Your task to perform on an android device: toggle pop-ups in chrome Image 0: 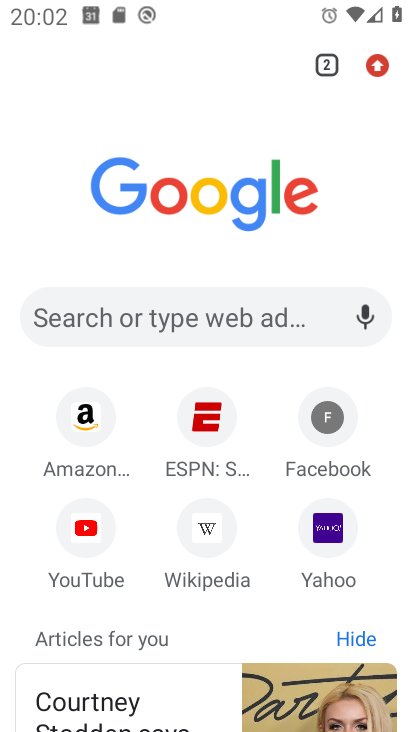
Step 0: click (372, 75)
Your task to perform on an android device: toggle pop-ups in chrome Image 1: 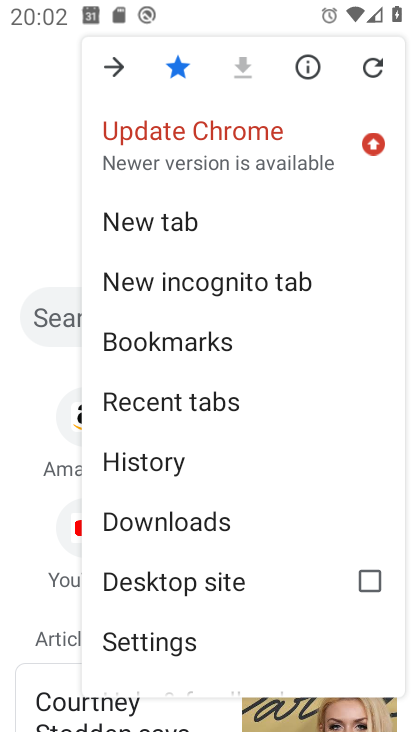
Step 1: click (194, 655)
Your task to perform on an android device: toggle pop-ups in chrome Image 2: 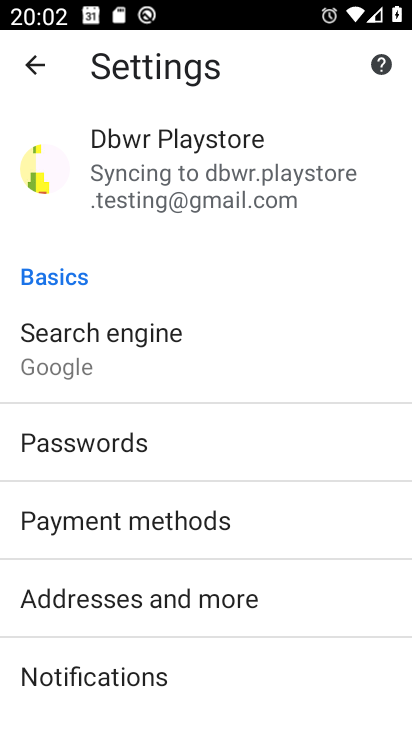
Step 2: drag from (242, 647) to (241, 261)
Your task to perform on an android device: toggle pop-ups in chrome Image 3: 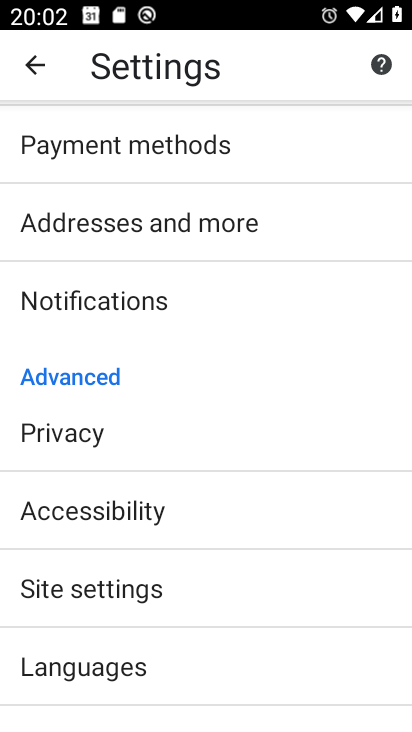
Step 3: drag from (225, 574) to (167, 289)
Your task to perform on an android device: toggle pop-ups in chrome Image 4: 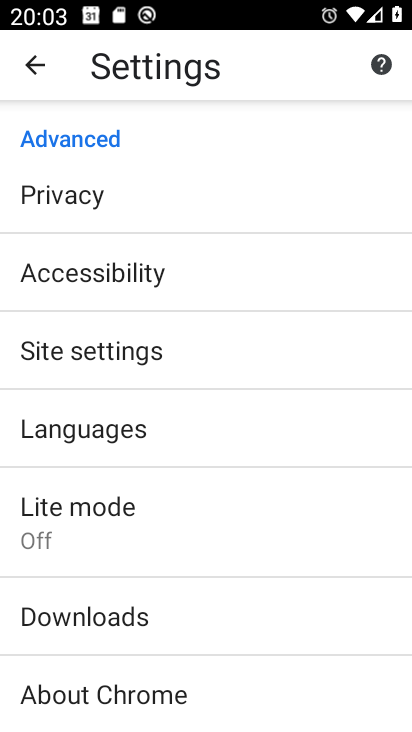
Step 4: click (153, 328)
Your task to perform on an android device: toggle pop-ups in chrome Image 5: 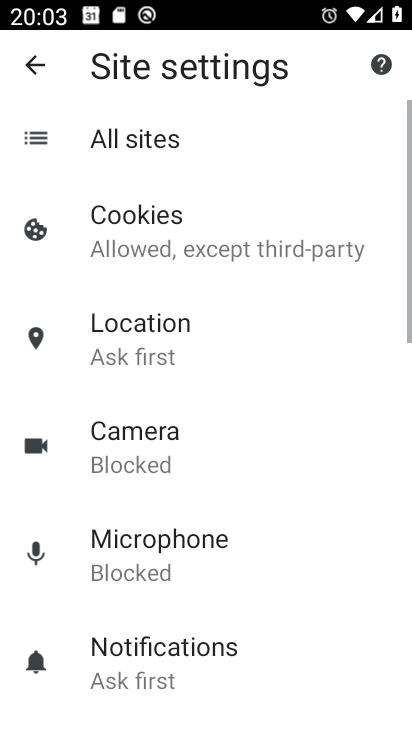
Step 5: drag from (221, 577) to (197, 234)
Your task to perform on an android device: toggle pop-ups in chrome Image 6: 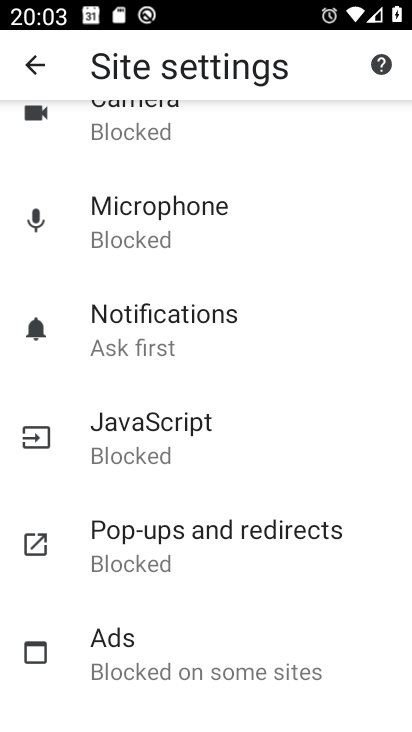
Step 6: click (194, 538)
Your task to perform on an android device: toggle pop-ups in chrome Image 7: 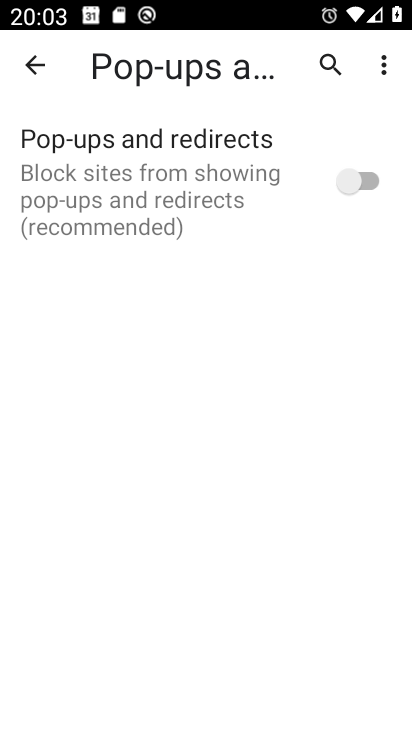
Step 7: click (350, 143)
Your task to perform on an android device: toggle pop-ups in chrome Image 8: 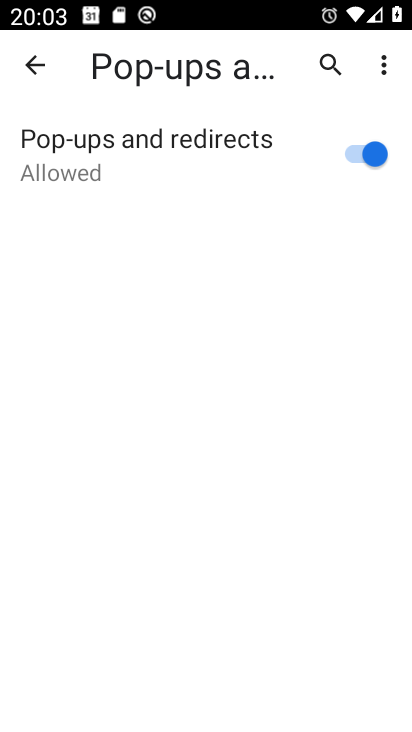
Step 8: task complete